Your task to perform on an android device: change timer sound Image 0: 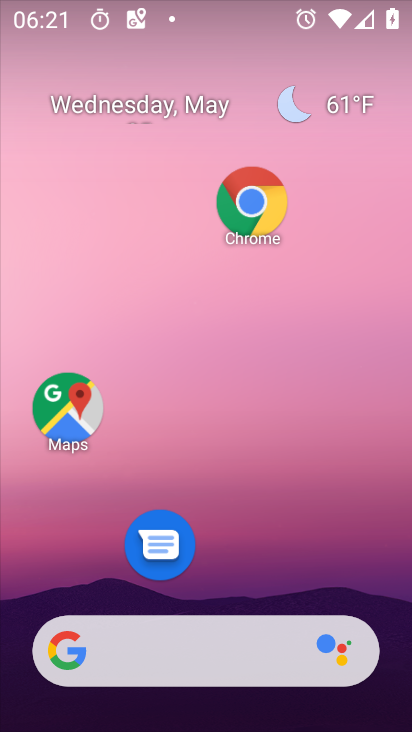
Step 0: drag from (244, 609) to (199, 124)
Your task to perform on an android device: change timer sound Image 1: 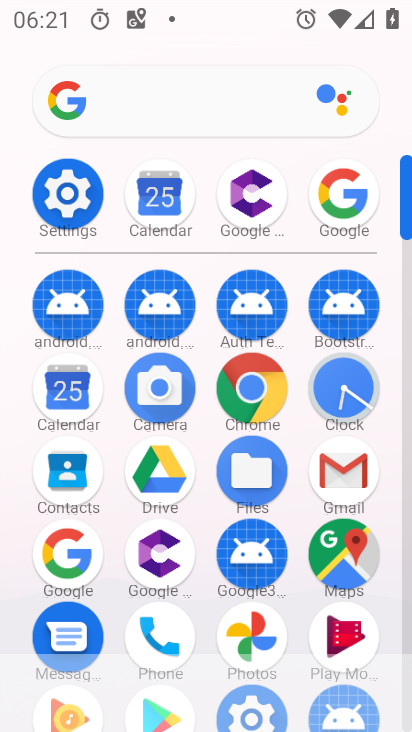
Step 1: click (327, 395)
Your task to perform on an android device: change timer sound Image 2: 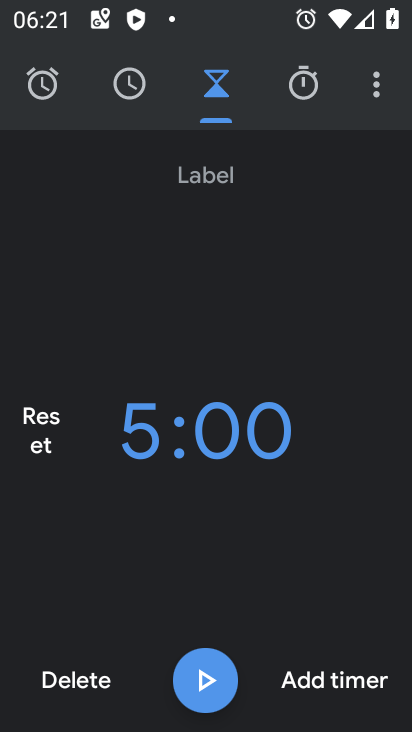
Step 2: click (374, 89)
Your task to perform on an android device: change timer sound Image 3: 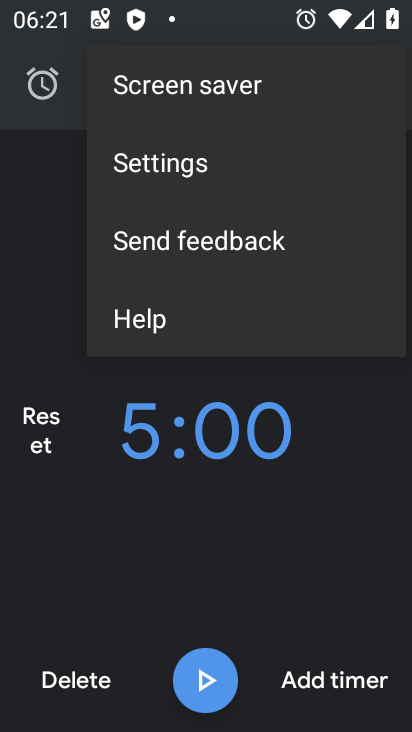
Step 3: click (173, 158)
Your task to perform on an android device: change timer sound Image 4: 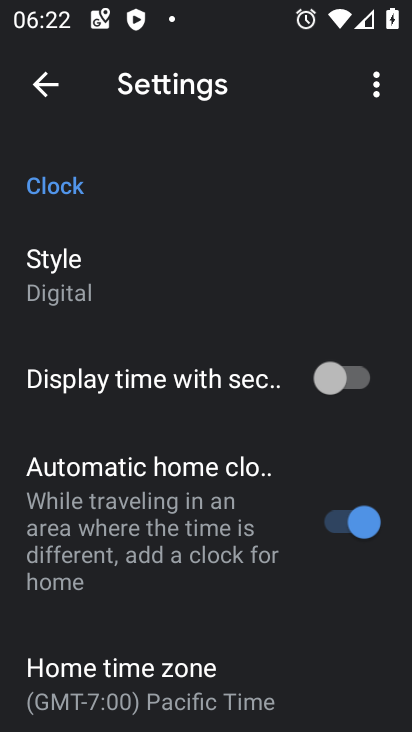
Step 4: drag from (220, 684) to (181, 357)
Your task to perform on an android device: change timer sound Image 5: 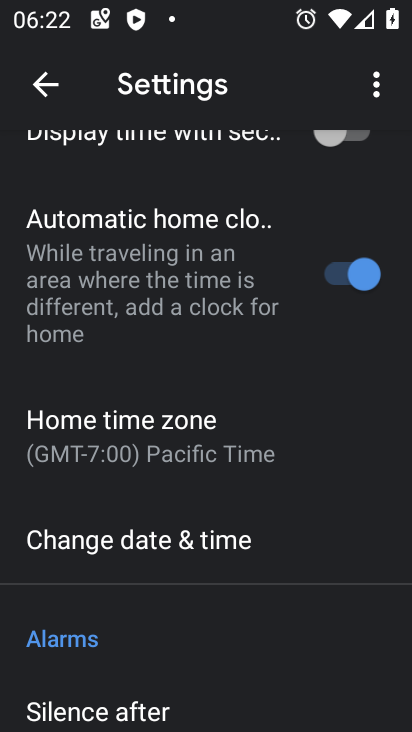
Step 5: drag from (158, 705) to (164, 383)
Your task to perform on an android device: change timer sound Image 6: 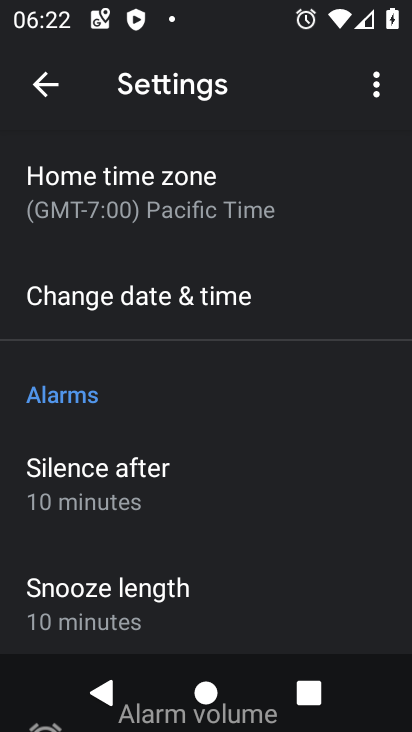
Step 6: drag from (174, 612) to (177, 316)
Your task to perform on an android device: change timer sound Image 7: 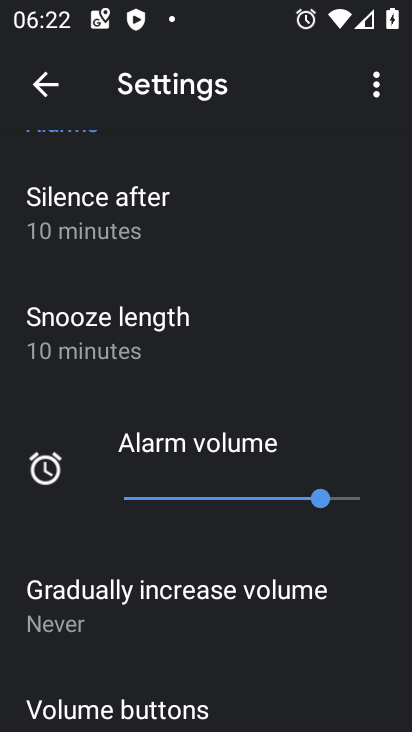
Step 7: drag from (129, 633) to (129, 340)
Your task to perform on an android device: change timer sound Image 8: 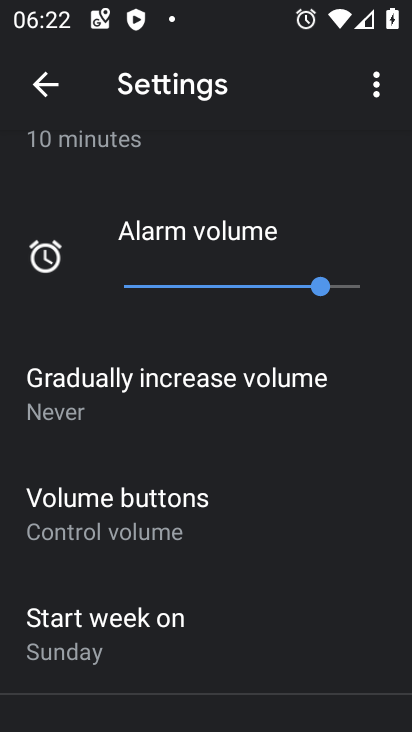
Step 8: drag from (168, 613) to (168, 269)
Your task to perform on an android device: change timer sound Image 9: 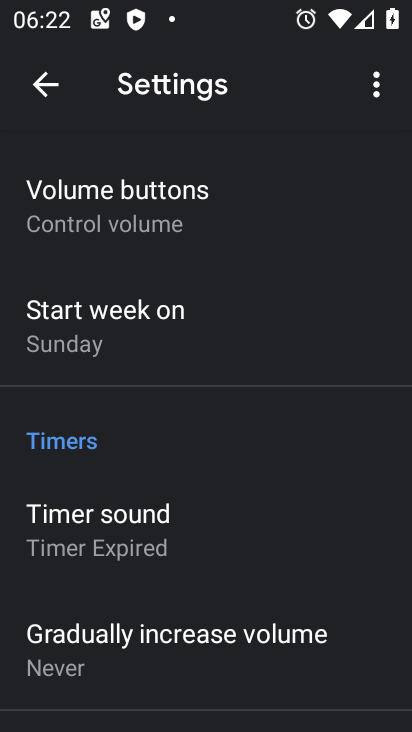
Step 9: click (137, 526)
Your task to perform on an android device: change timer sound Image 10: 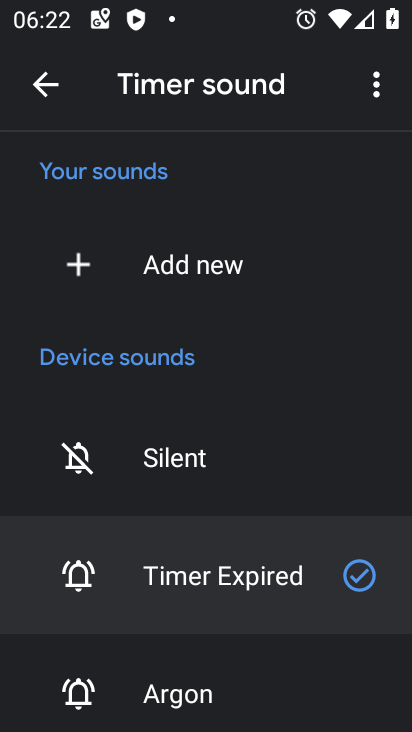
Step 10: click (174, 690)
Your task to perform on an android device: change timer sound Image 11: 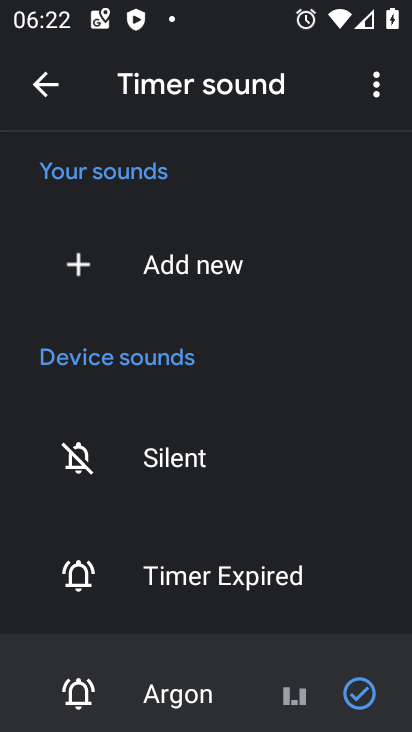
Step 11: task complete